Your task to perform on an android device: Open the web browser Image 0: 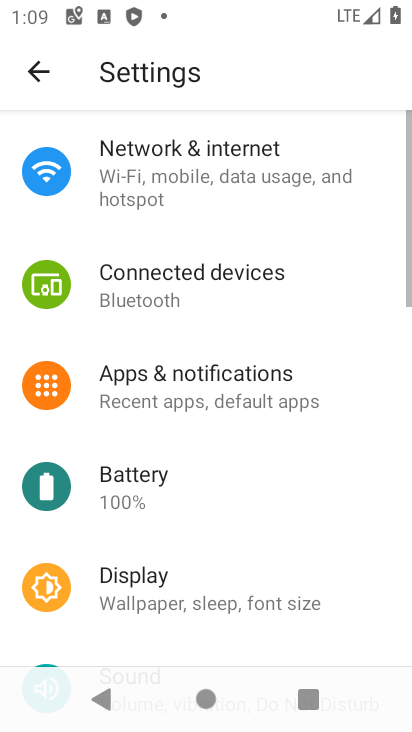
Step 0: press home button
Your task to perform on an android device: Open the web browser Image 1: 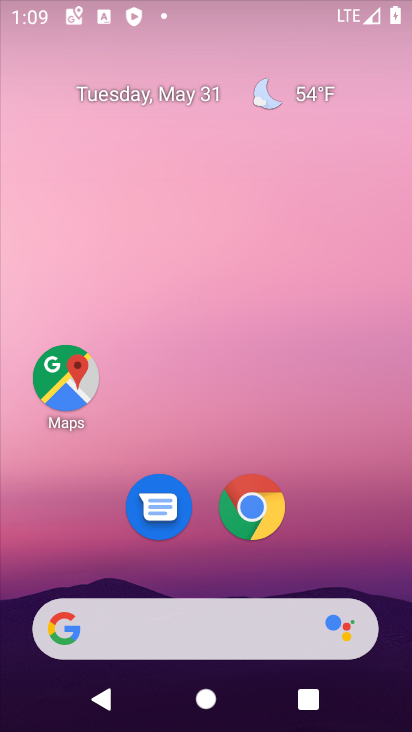
Step 1: drag from (397, 639) to (199, 6)
Your task to perform on an android device: Open the web browser Image 2: 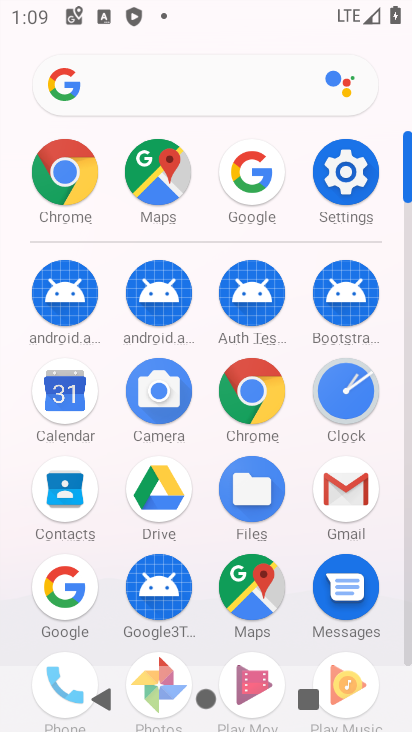
Step 2: click (258, 187)
Your task to perform on an android device: Open the web browser Image 3: 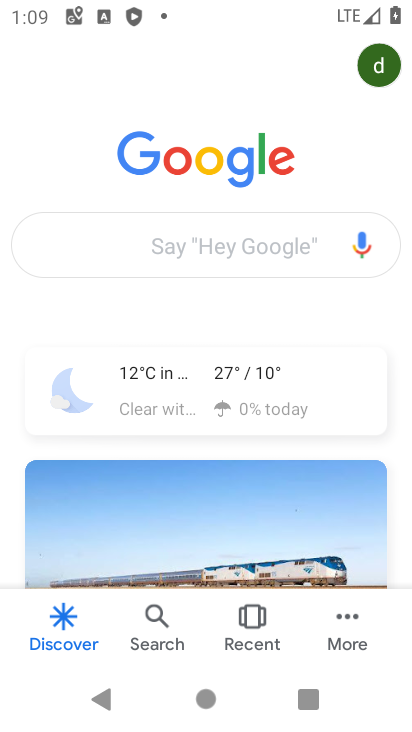
Step 3: click (174, 256)
Your task to perform on an android device: Open the web browser Image 4: 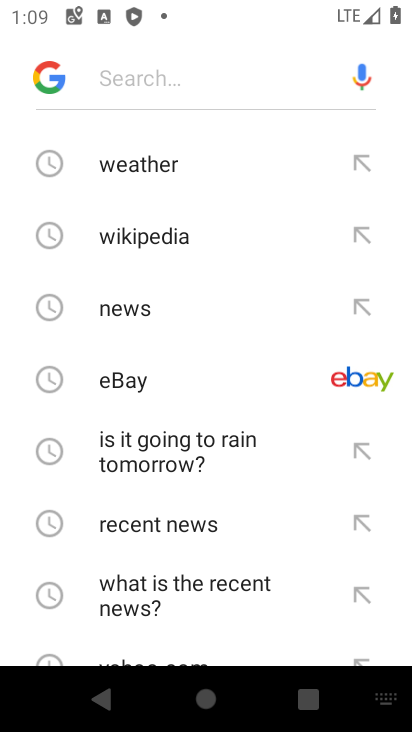
Step 4: drag from (191, 538) to (252, 125)
Your task to perform on an android device: Open the web browser Image 5: 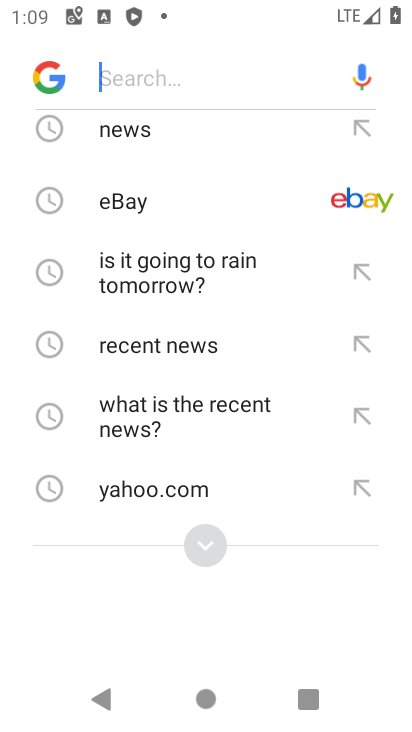
Step 5: click (202, 533)
Your task to perform on an android device: Open the web browser Image 6: 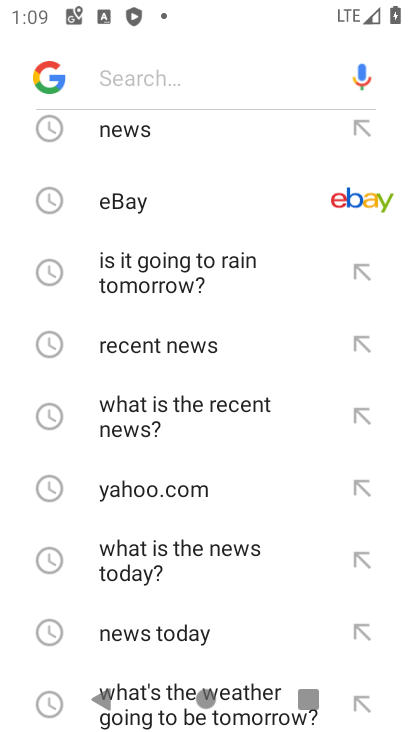
Step 6: drag from (153, 627) to (211, 146)
Your task to perform on an android device: Open the web browser Image 7: 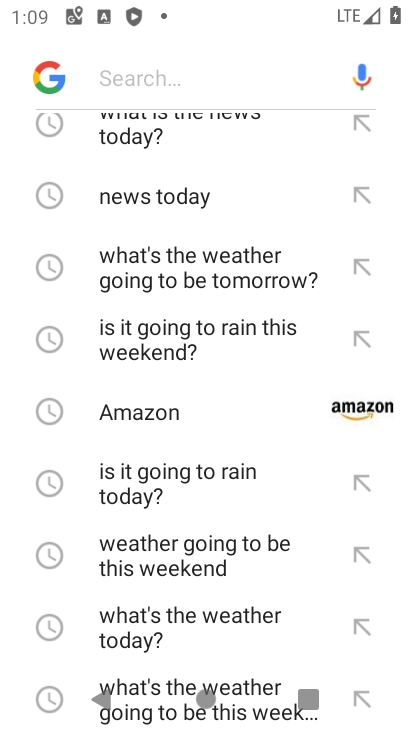
Step 7: drag from (124, 525) to (140, 164)
Your task to perform on an android device: Open the web browser Image 8: 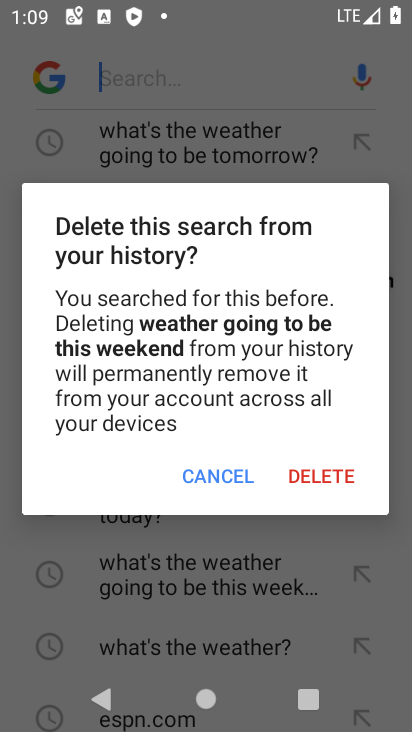
Step 8: click (218, 466)
Your task to perform on an android device: Open the web browser Image 9: 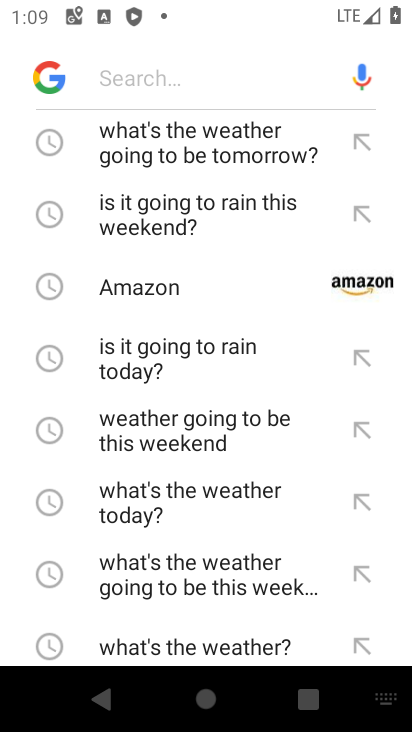
Step 9: drag from (134, 591) to (194, 199)
Your task to perform on an android device: Open the web browser Image 10: 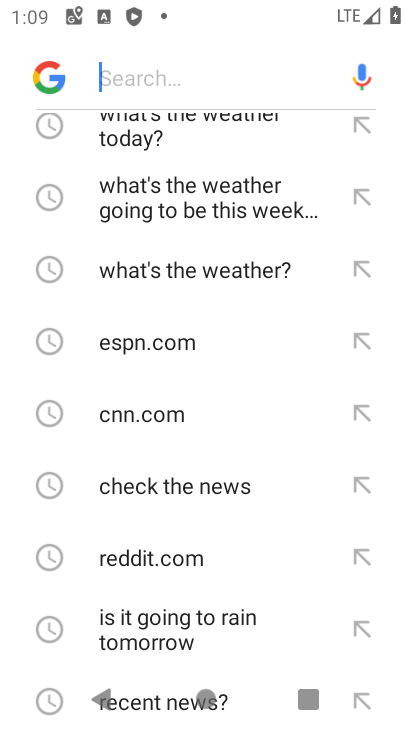
Step 10: drag from (166, 564) to (197, 233)
Your task to perform on an android device: Open the web browser Image 11: 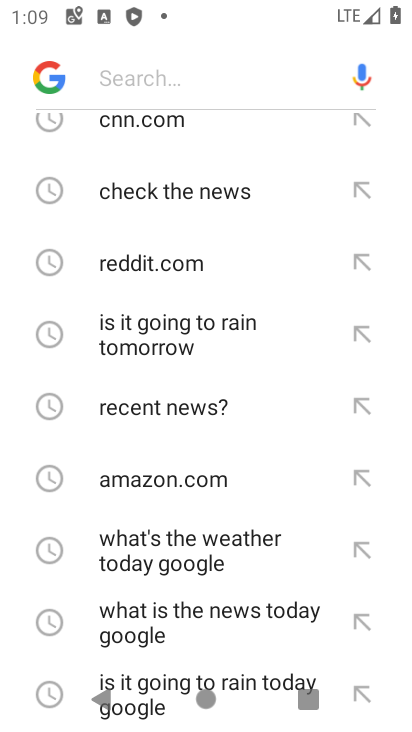
Step 11: drag from (141, 522) to (205, 115)
Your task to perform on an android device: Open the web browser Image 12: 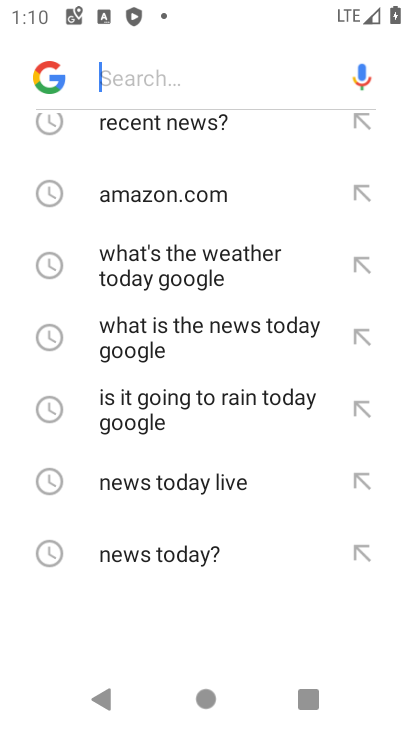
Step 12: type "web browser"
Your task to perform on an android device: Open the web browser Image 13: 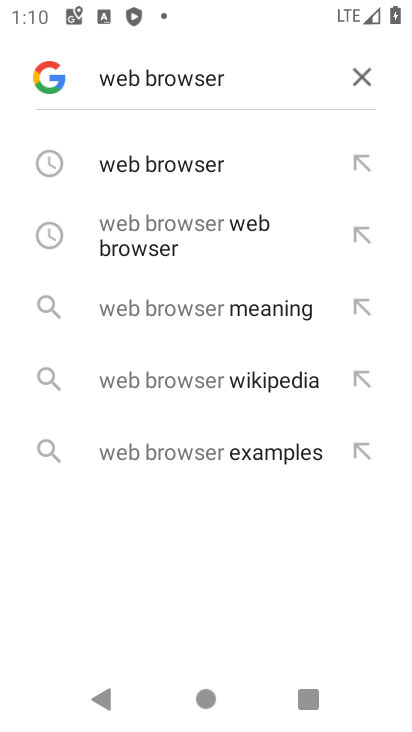
Step 13: click (177, 162)
Your task to perform on an android device: Open the web browser Image 14: 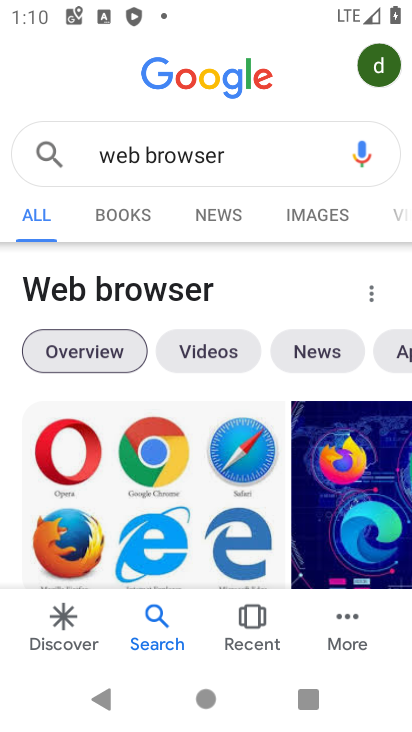
Step 14: task complete